Your task to perform on an android device: Open location settings Image 0: 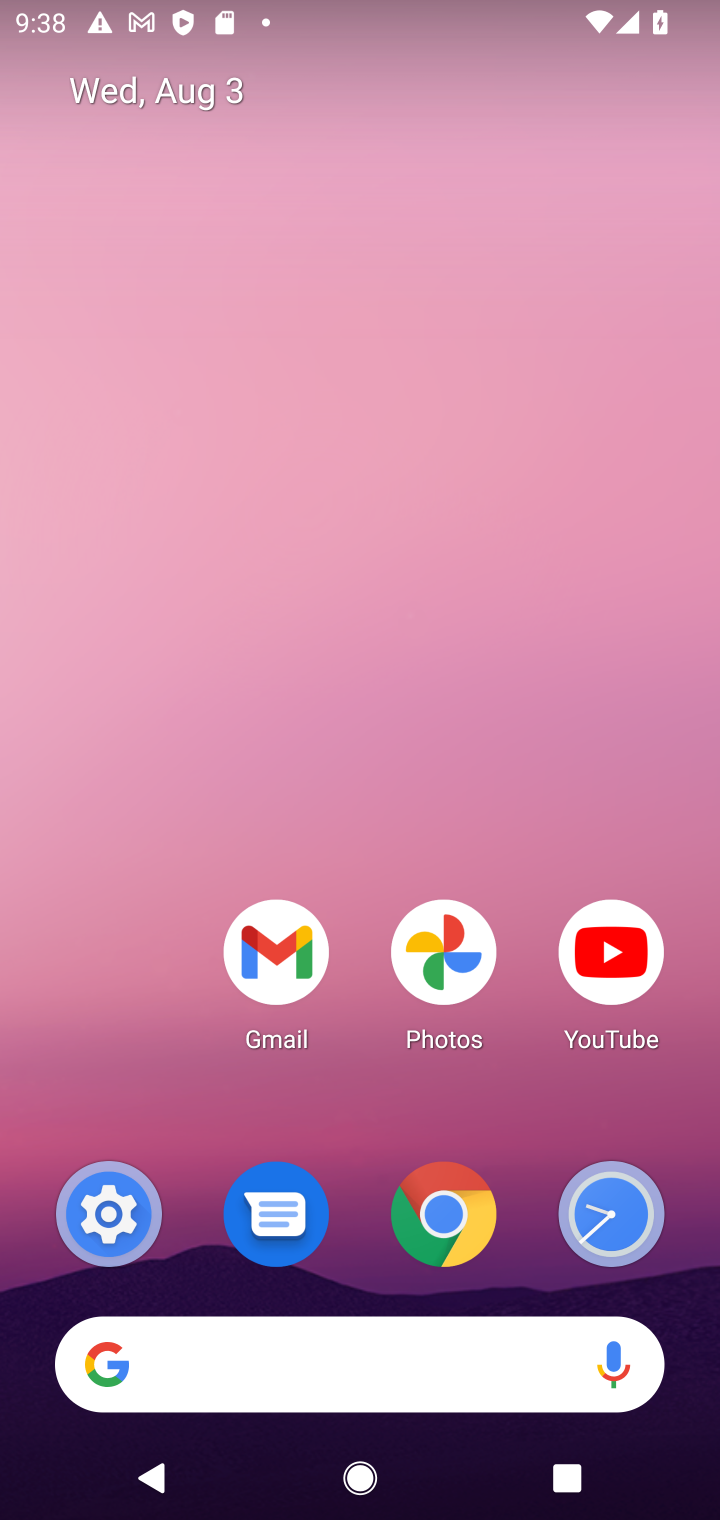
Step 0: press home button
Your task to perform on an android device: Open location settings Image 1: 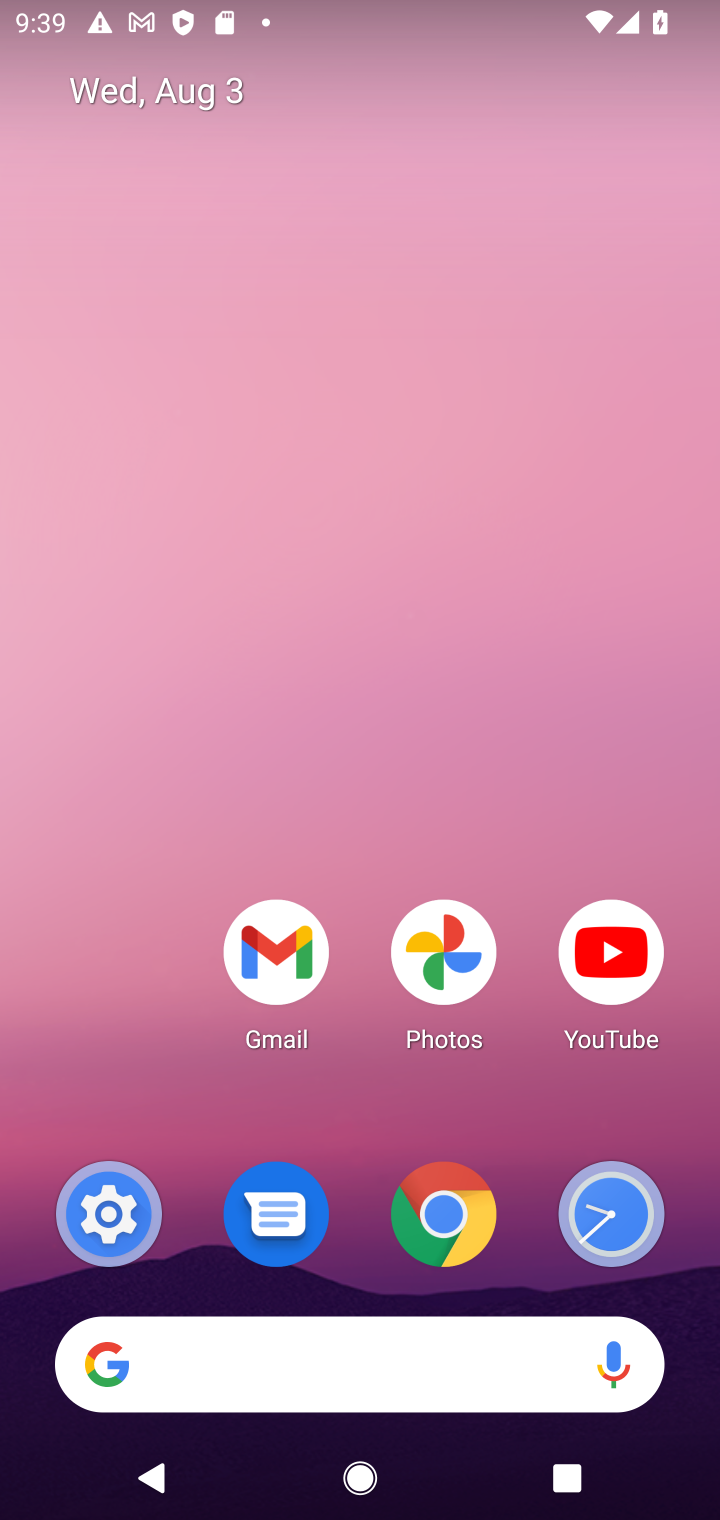
Step 1: drag from (363, 1098) to (411, 190)
Your task to perform on an android device: Open location settings Image 2: 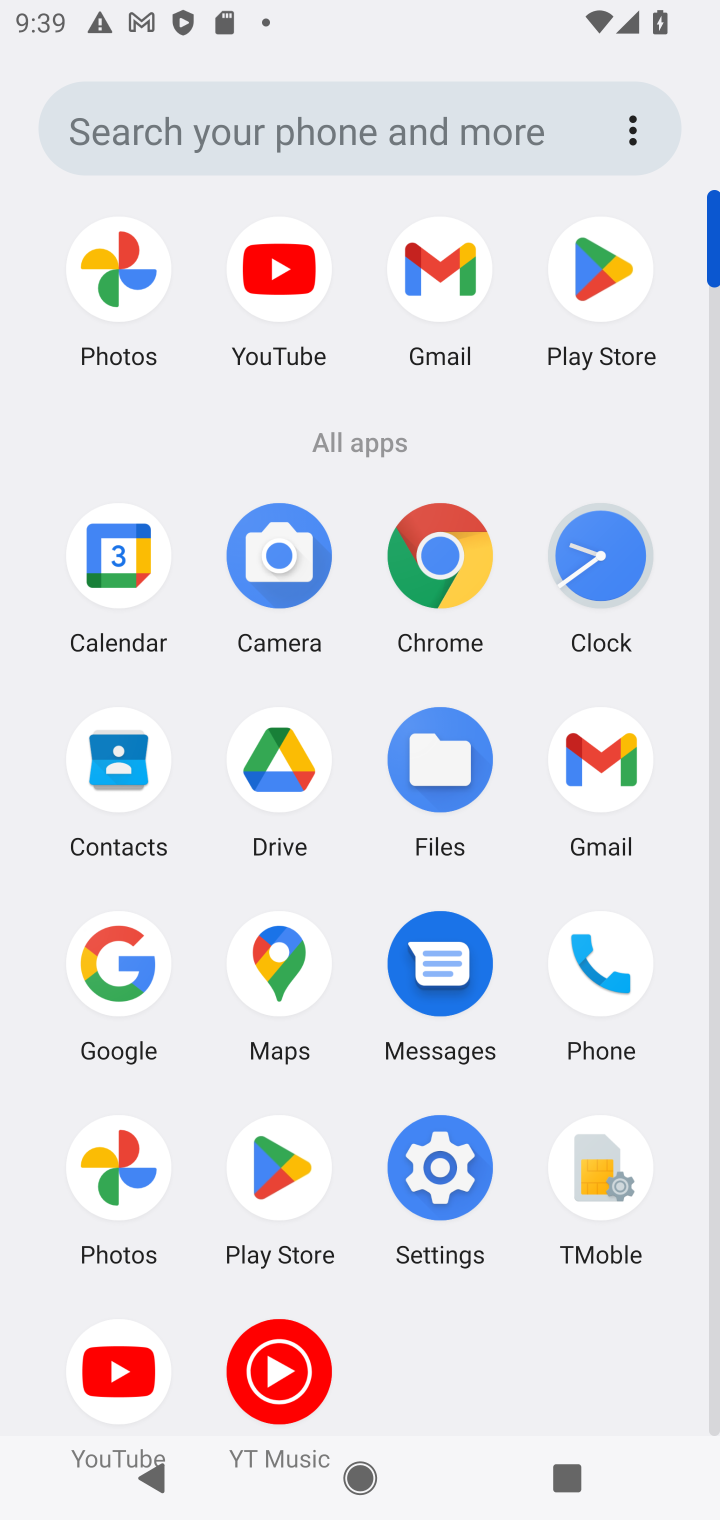
Step 2: click (442, 1164)
Your task to perform on an android device: Open location settings Image 3: 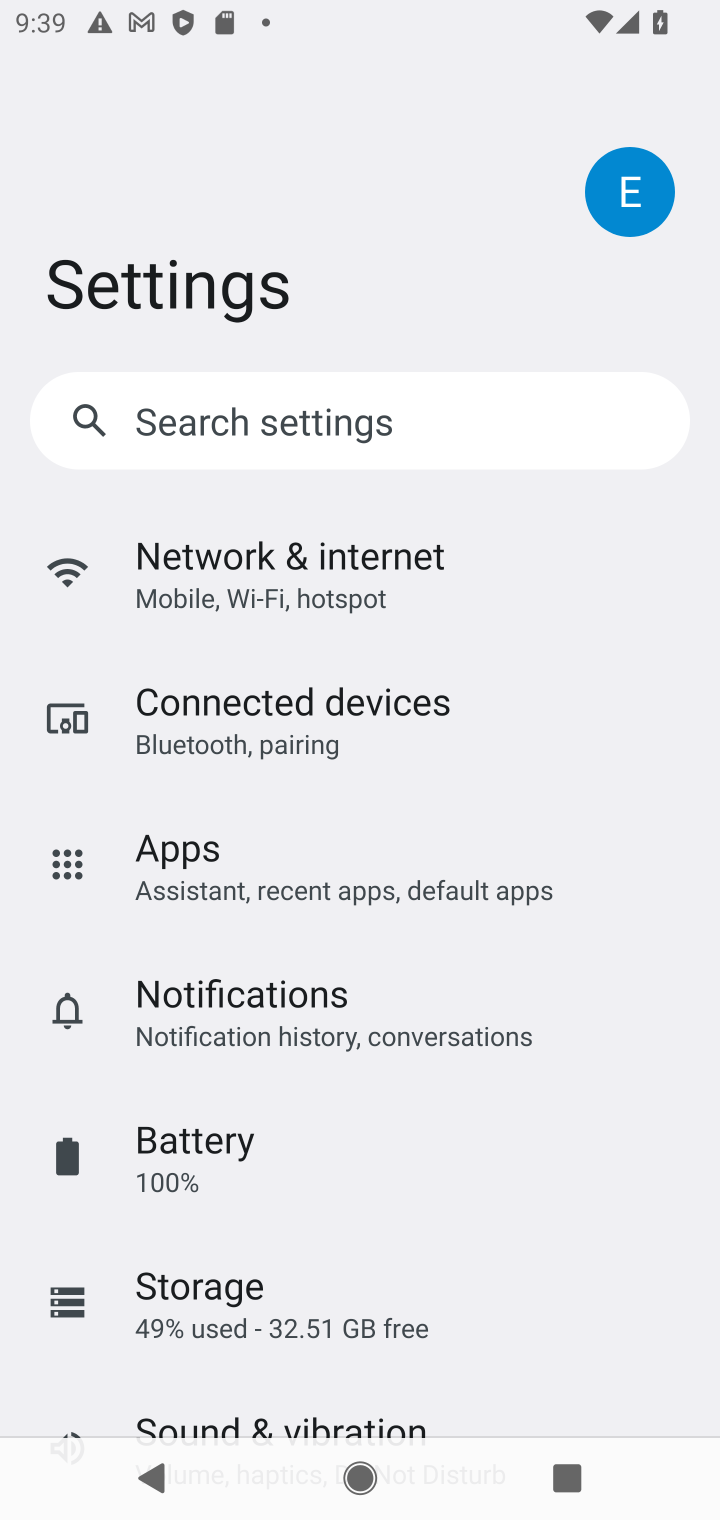
Step 3: drag from (481, 1224) to (493, 480)
Your task to perform on an android device: Open location settings Image 4: 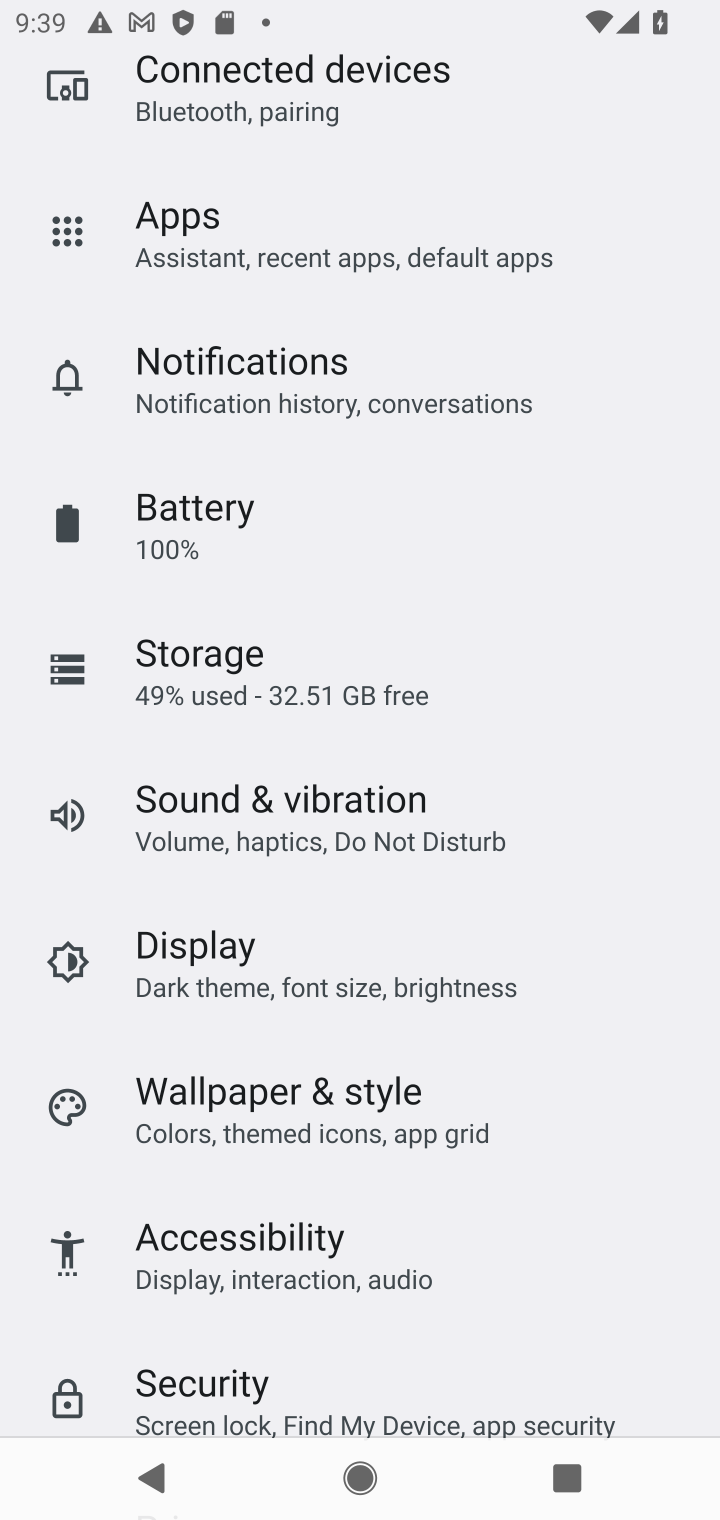
Step 4: drag from (497, 1328) to (604, 646)
Your task to perform on an android device: Open location settings Image 5: 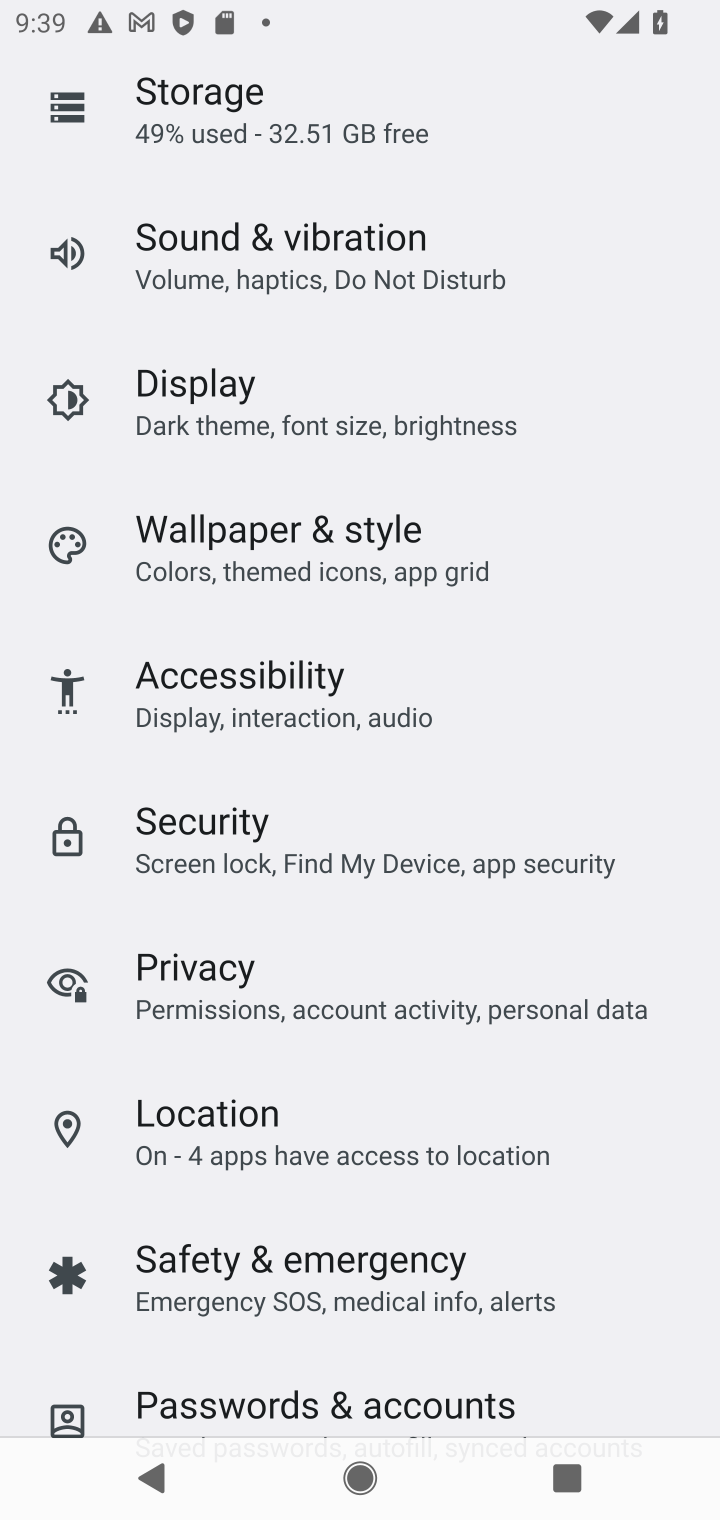
Step 5: click (226, 1112)
Your task to perform on an android device: Open location settings Image 6: 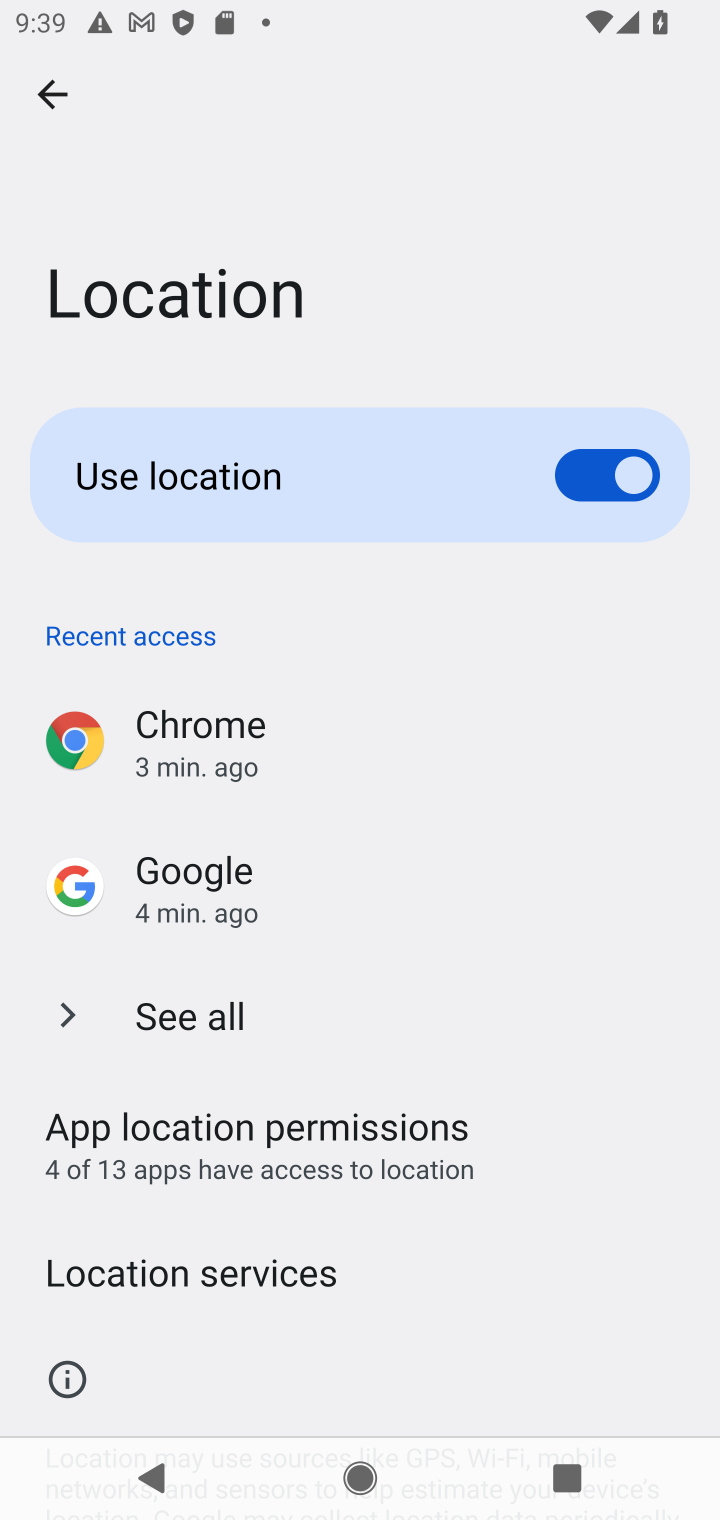
Step 6: task complete